Your task to perform on an android device: change notifications settings Image 0: 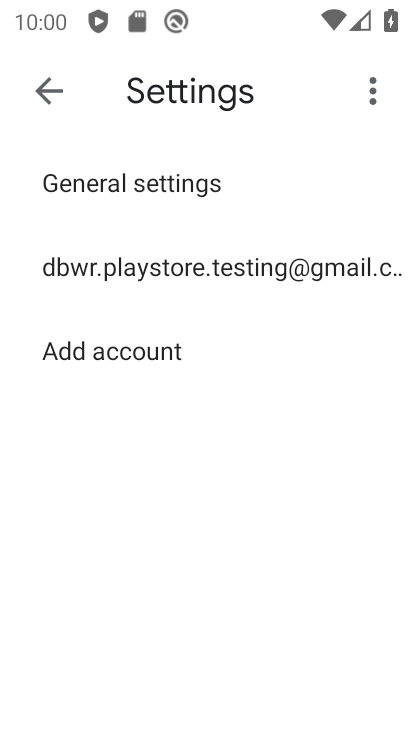
Step 0: press home button
Your task to perform on an android device: change notifications settings Image 1: 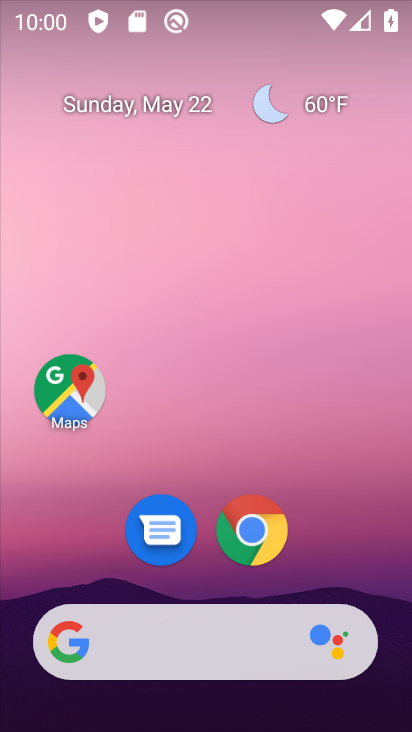
Step 1: drag from (275, 611) to (323, 121)
Your task to perform on an android device: change notifications settings Image 2: 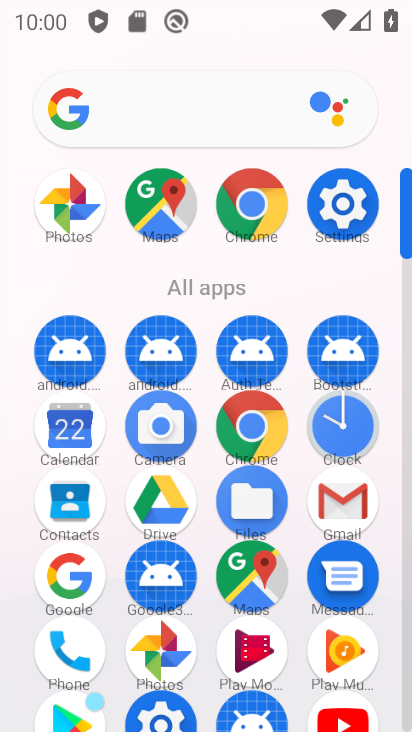
Step 2: click (345, 212)
Your task to perform on an android device: change notifications settings Image 3: 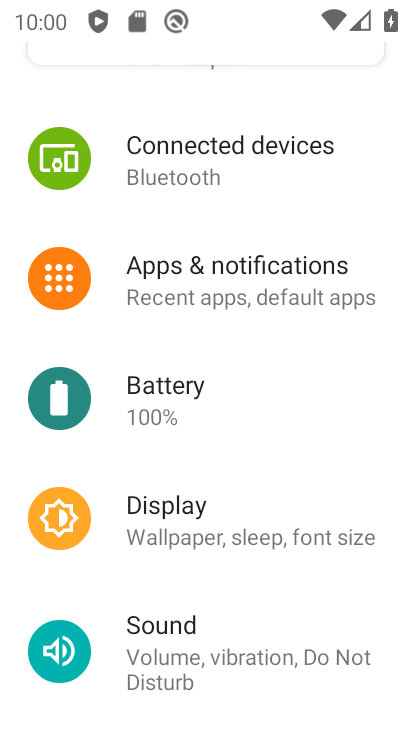
Step 3: click (285, 290)
Your task to perform on an android device: change notifications settings Image 4: 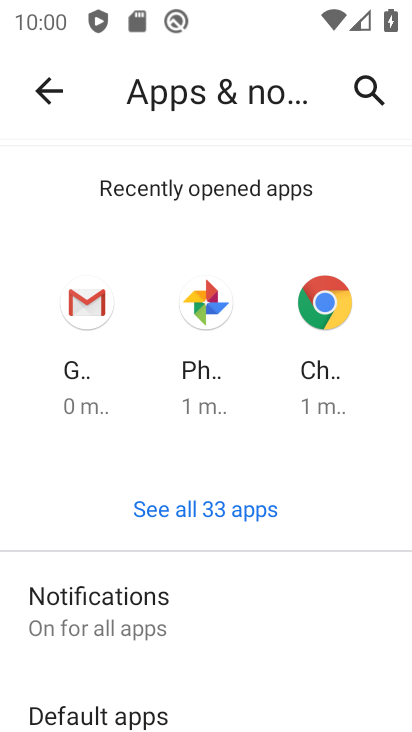
Step 4: click (156, 609)
Your task to perform on an android device: change notifications settings Image 5: 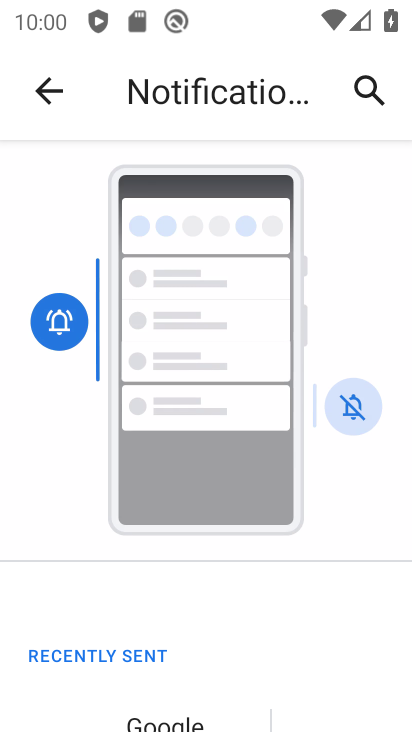
Step 5: drag from (299, 675) to (375, 180)
Your task to perform on an android device: change notifications settings Image 6: 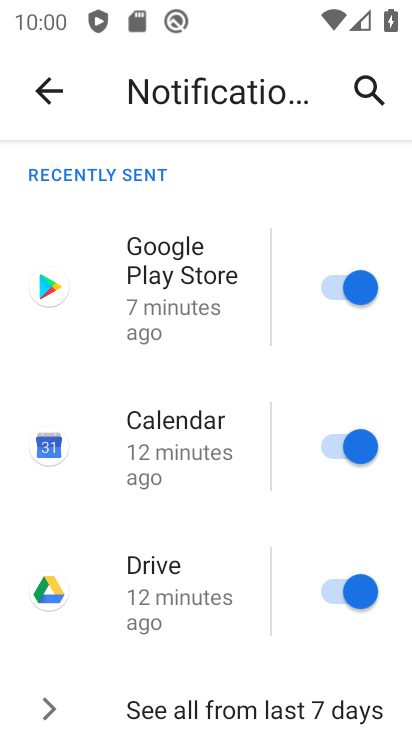
Step 6: click (313, 299)
Your task to perform on an android device: change notifications settings Image 7: 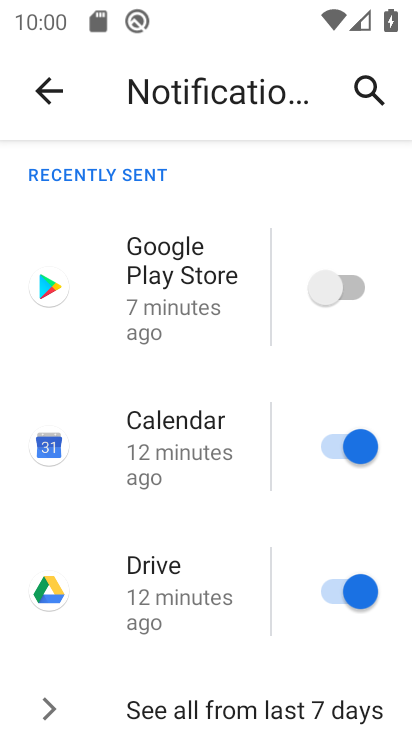
Step 7: click (322, 455)
Your task to perform on an android device: change notifications settings Image 8: 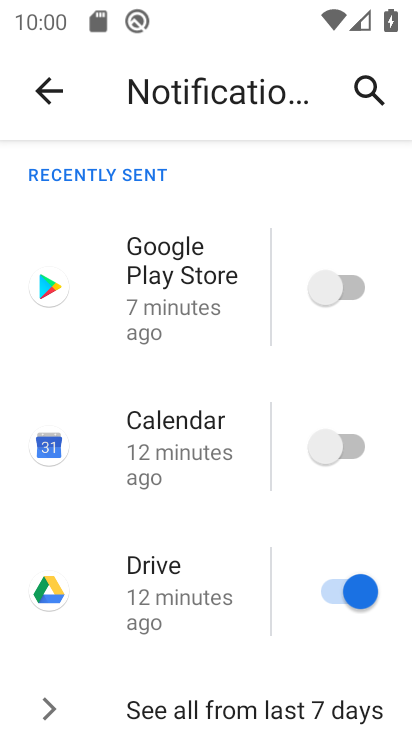
Step 8: click (314, 590)
Your task to perform on an android device: change notifications settings Image 9: 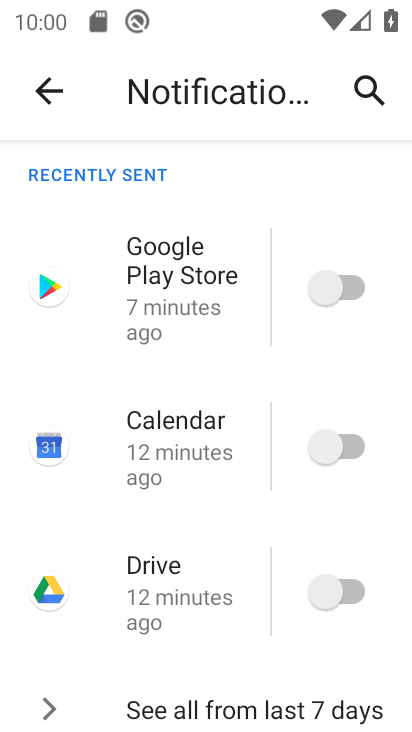
Step 9: task complete